Your task to perform on an android device: change text size in settings app Image 0: 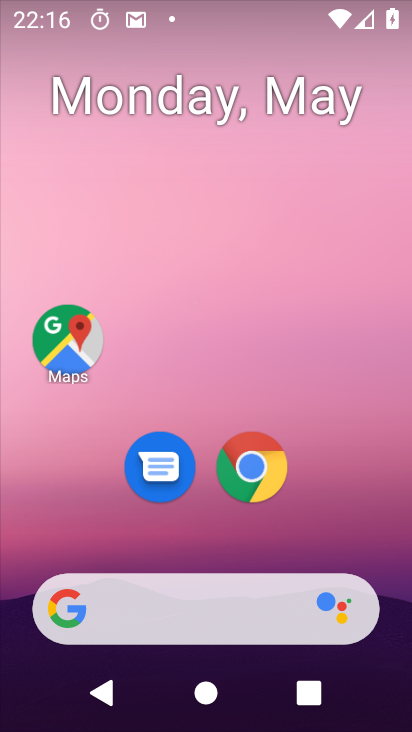
Step 0: press home button
Your task to perform on an android device: change text size in settings app Image 1: 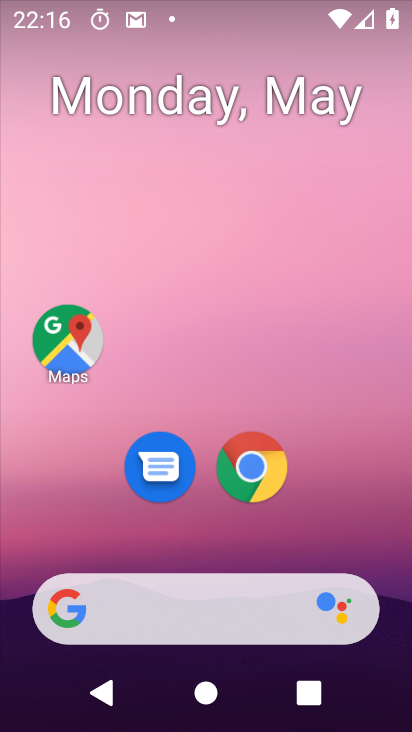
Step 1: drag from (232, 639) to (288, 202)
Your task to perform on an android device: change text size in settings app Image 2: 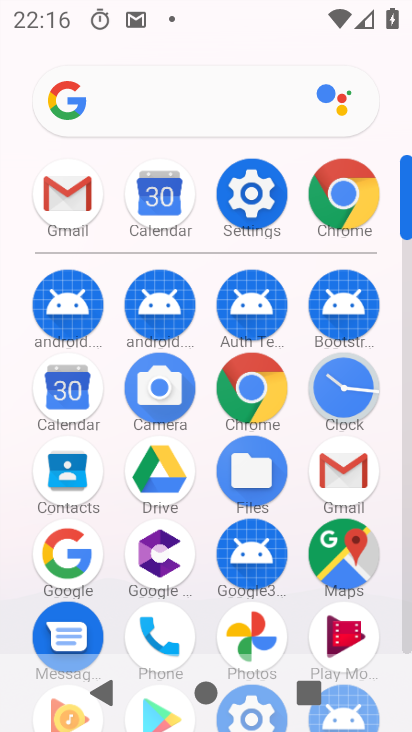
Step 2: click (242, 213)
Your task to perform on an android device: change text size in settings app Image 3: 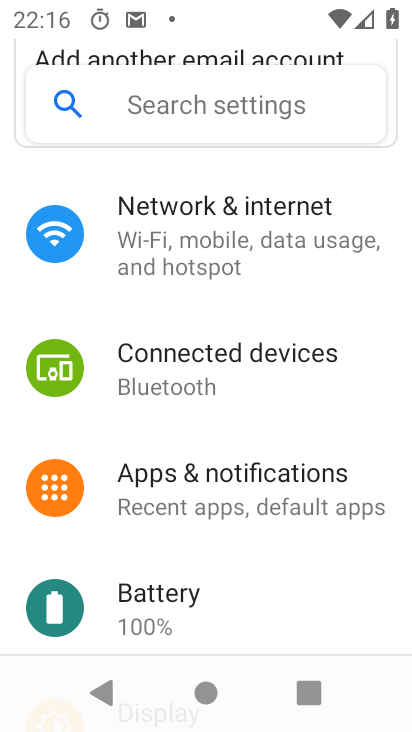
Step 3: click (160, 97)
Your task to perform on an android device: change text size in settings app Image 4: 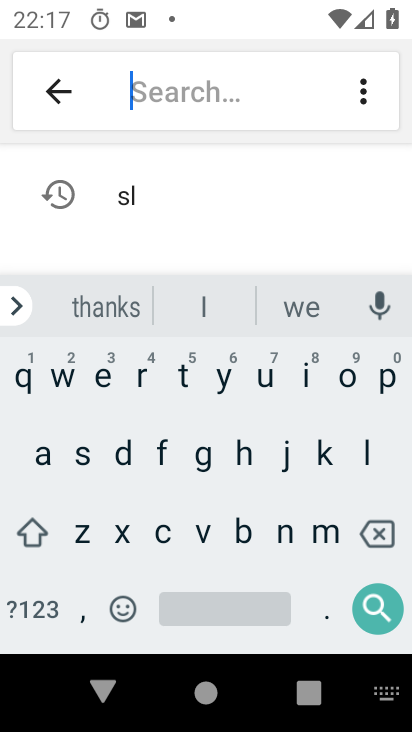
Step 4: click (92, 449)
Your task to perform on an android device: change text size in settings app Image 5: 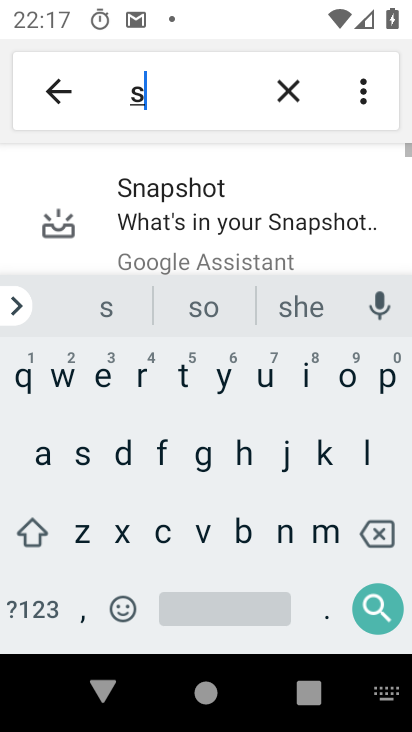
Step 5: click (307, 387)
Your task to perform on an android device: change text size in settings app Image 6: 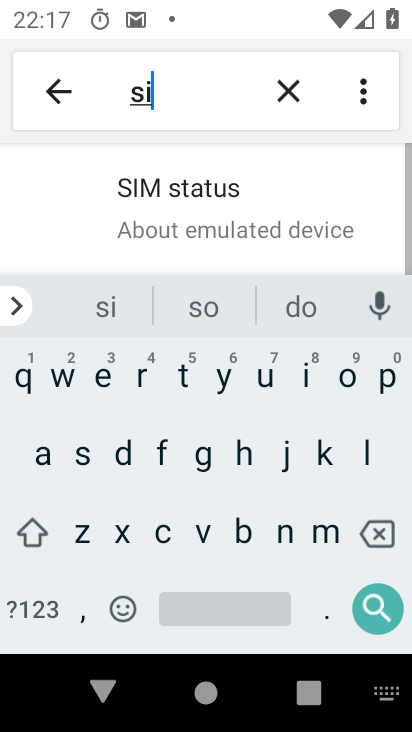
Step 6: click (89, 534)
Your task to perform on an android device: change text size in settings app Image 7: 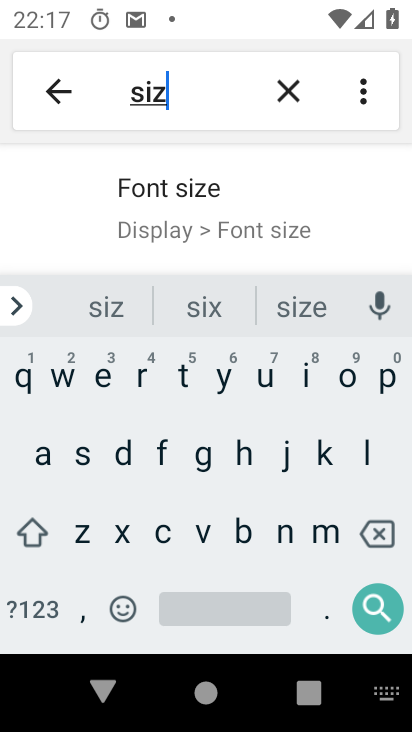
Step 7: click (188, 211)
Your task to perform on an android device: change text size in settings app Image 8: 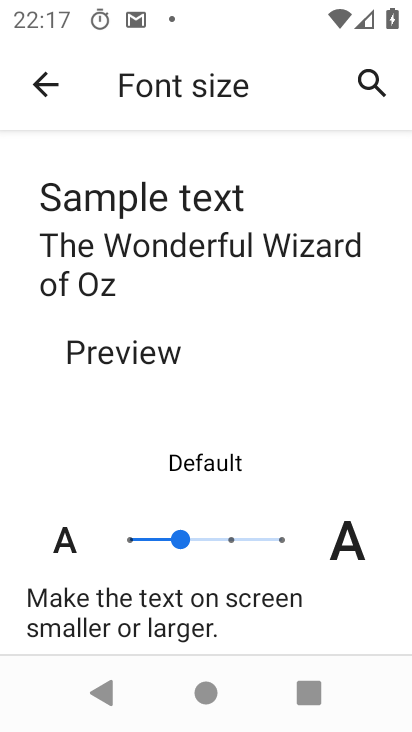
Step 8: click (232, 537)
Your task to perform on an android device: change text size in settings app Image 9: 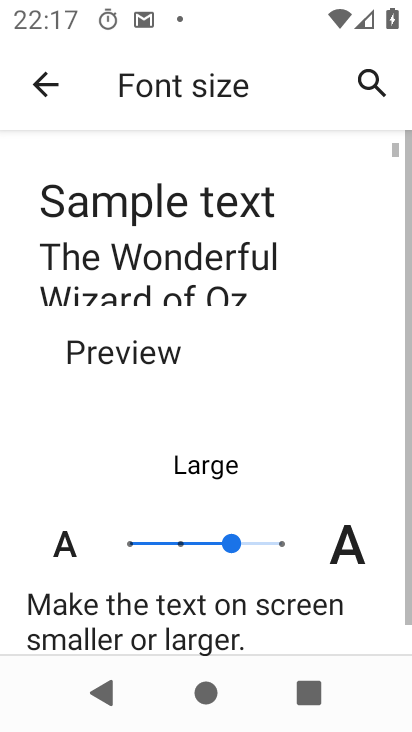
Step 9: task complete